Your task to perform on an android device: see sites visited before in the chrome app Image 0: 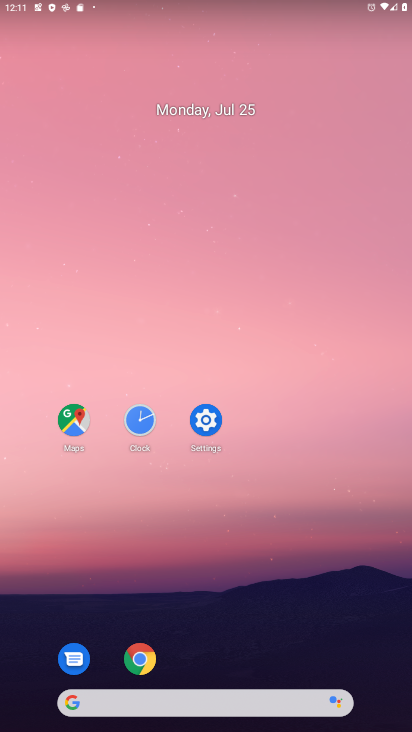
Step 0: click (144, 663)
Your task to perform on an android device: see sites visited before in the chrome app Image 1: 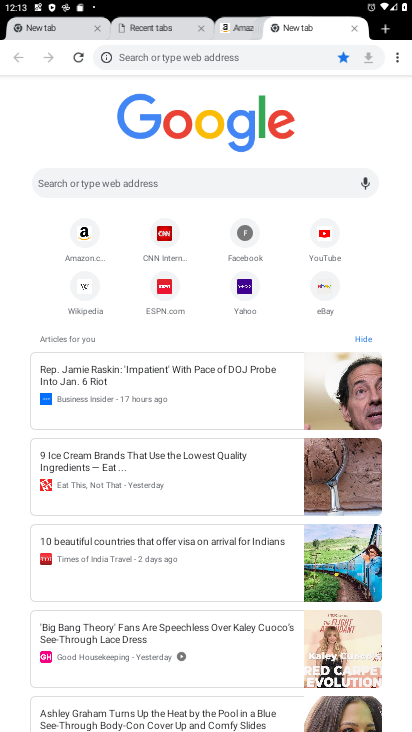
Step 1: click (399, 58)
Your task to perform on an android device: see sites visited before in the chrome app Image 2: 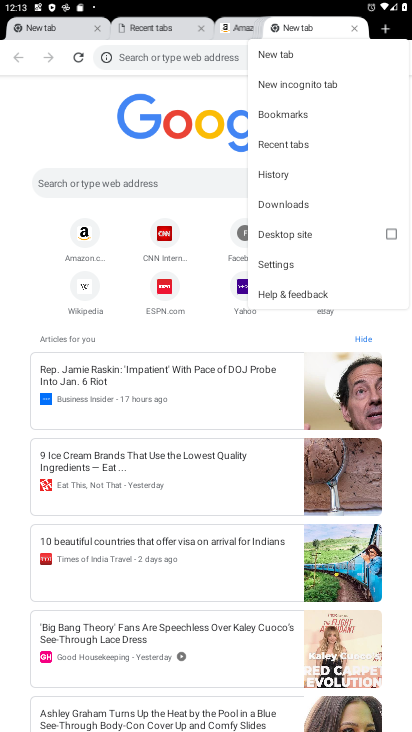
Step 2: click (278, 141)
Your task to perform on an android device: see sites visited before in the chrome app Image 3: 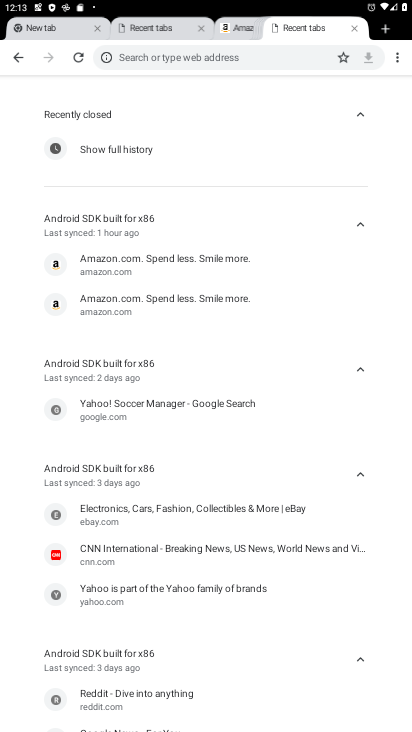
Step 3: task complete